Your task to perform on an android device: Search for sushi restaurants on Maps Image 0: 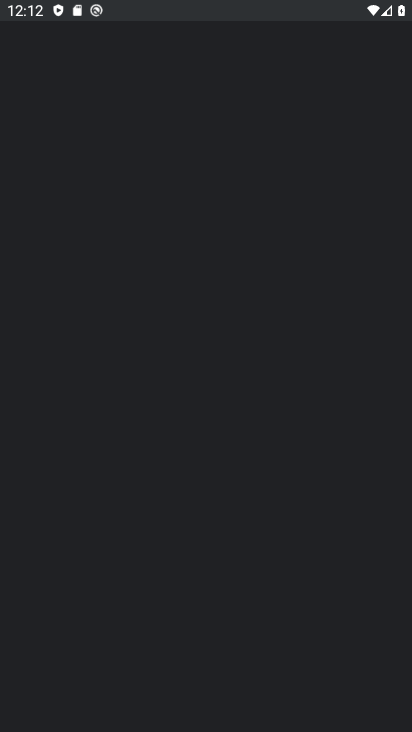
Step 0: drag from (184, 661) to (401, 504)
Your task to perform on an android device: Search for sushi restaurants on Maps Image 1: 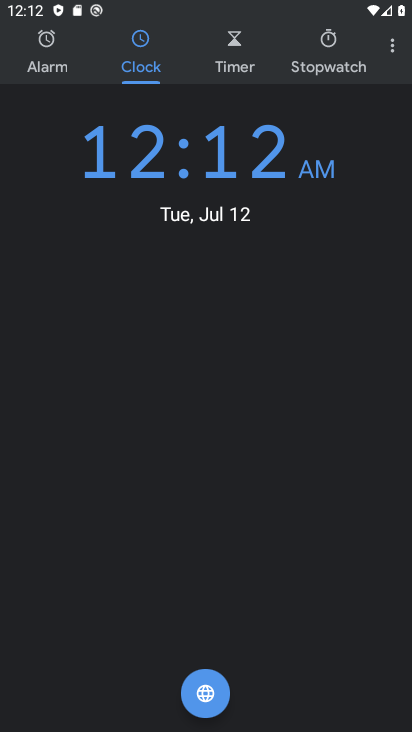
Step 1: press home button
Your task to perform on an android device: Search for sushi restaurants on Maps Image 2: 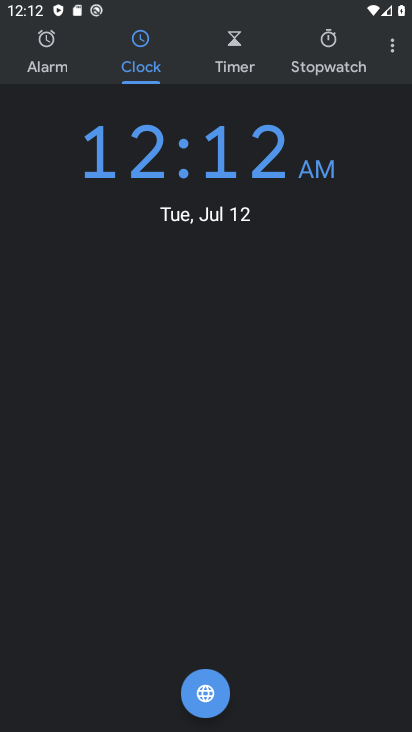
Step 2: drag from (401, 504) to (385, 471)
Your task to perform on an android device: Search for sushi restaurants on Maps Image 3: 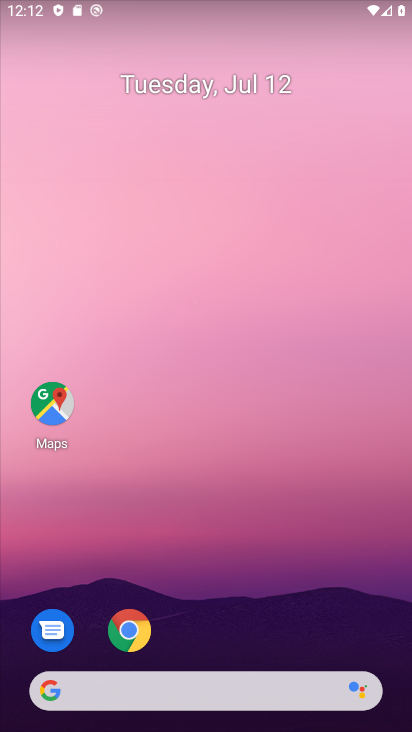
Step 3: drag from (172, 657) to (278, 212)
Your task to perform on an android device: Search for sushi restaurants on Maps Image 4: 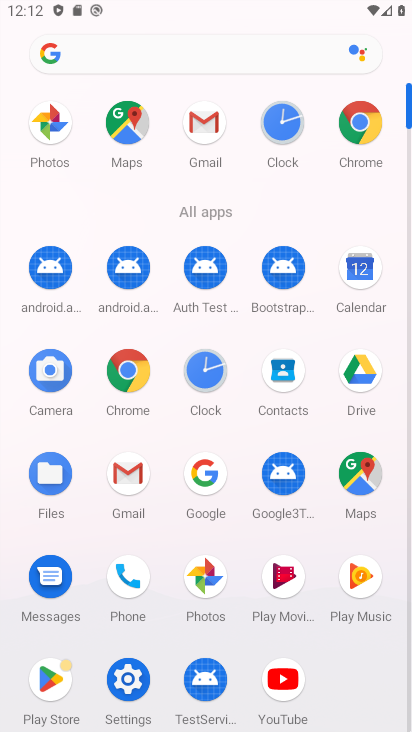
Step 4: click (376, 469)
Your task to perform on an android device: Search for sushi restaurants on Maps Image 5: 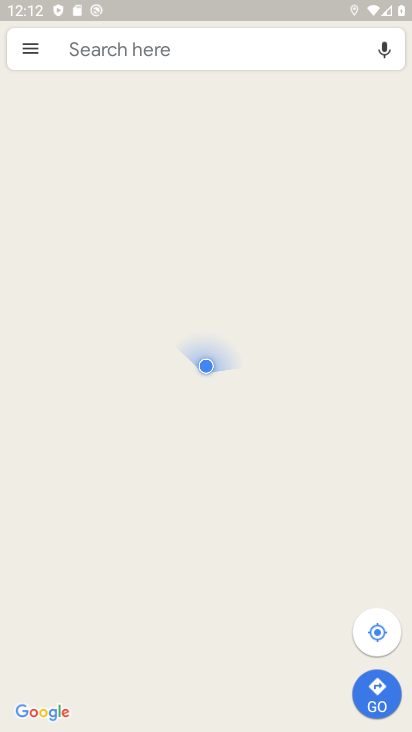
Step 5: click (116, 61)
Your task to perform on an android device: Search for sushi restaurants on Maps Image 6: 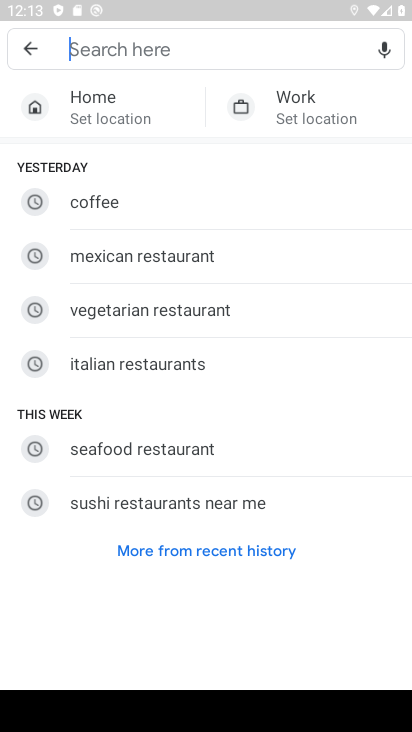
Step 6: type "sushi restaurants"
Your task to perform on an android device: Search for sushi restaurants on Maps Image 7: 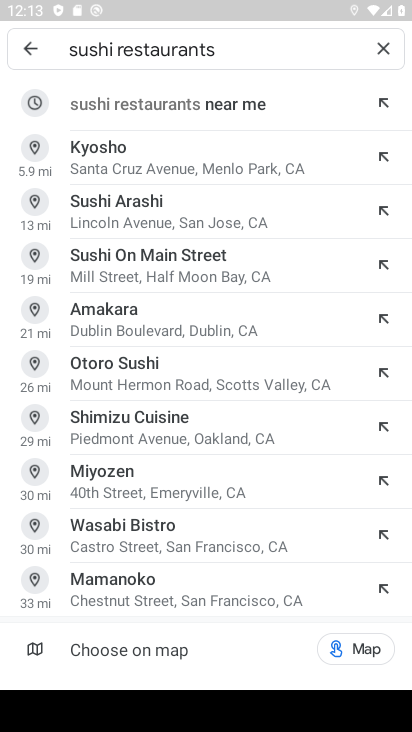
Step 7: click (248, 106)
Your task to perform on an android device: Search for sushi restaurants on Maps Image 8: 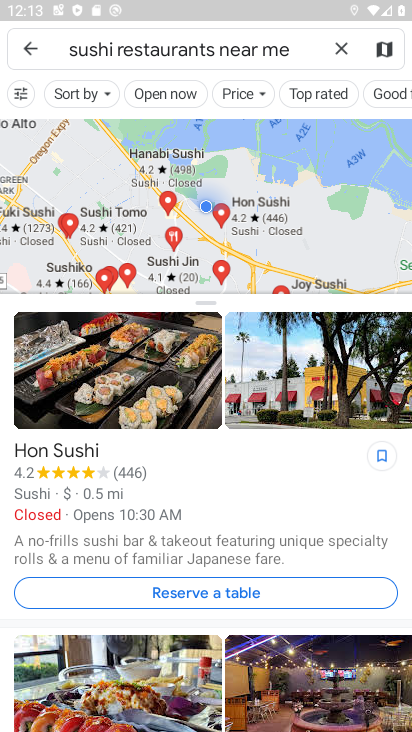
Step 8: task complete